Your task to perform on an android device: What's on my calendar today? Image 0: 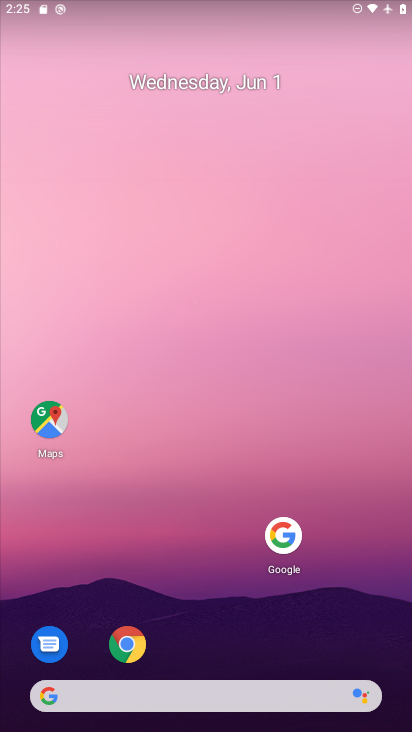
Step 0: drag from (181, 696) to (280, 140)
Your task to perform on an android device: What's on my calendar today? Image 1: 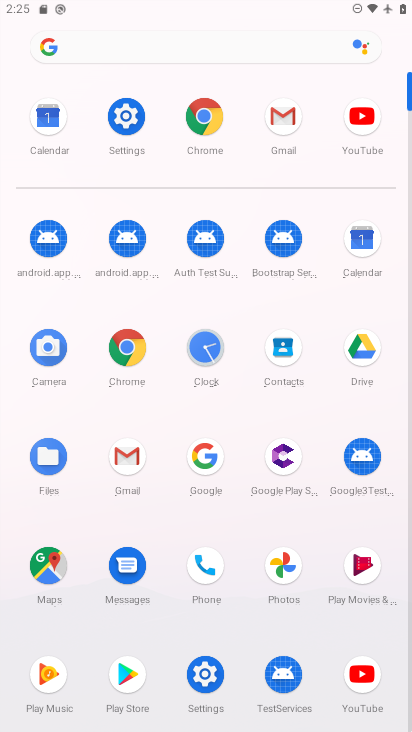
Step 1: click (356, 241)
Your task to perform on an android device: What's on my calendar today? Image 2: 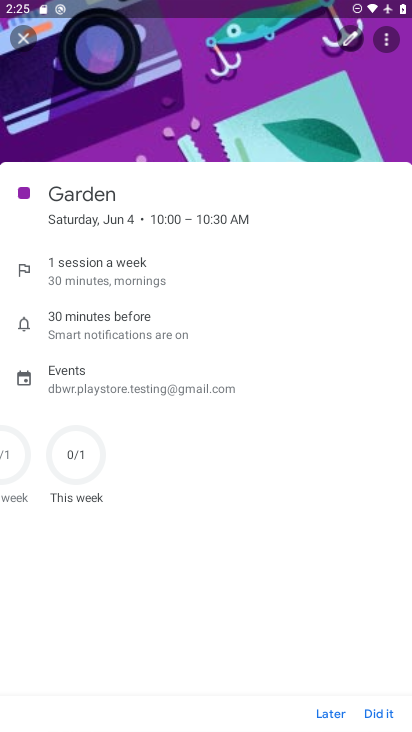
Step 2: click (26, 45)
Your task to perform on an android device: What's on my calendar today? Image 3: 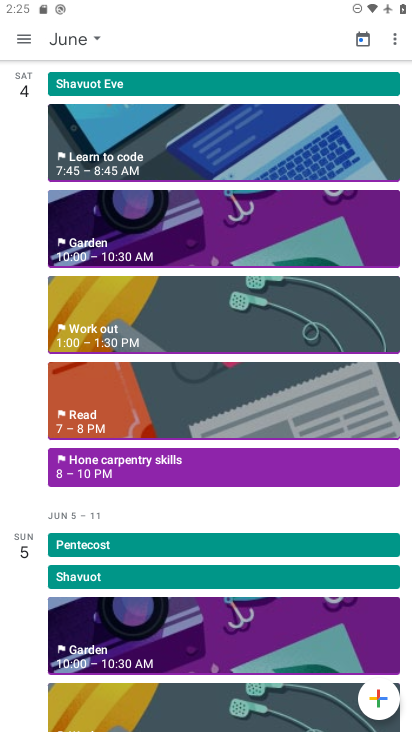
Step 3: click (59, 46)
Your task to perform on an android device: What's on my calendar today? Image 4: 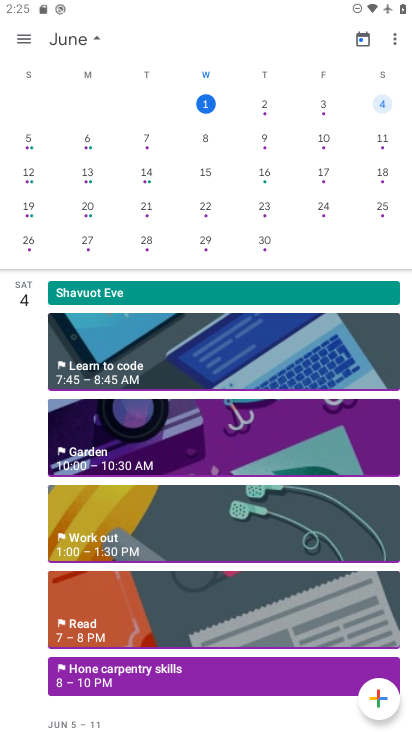
Step 4: click (204, 99)
Your task to perform on an android device: What's on my calendar today? Image 5: 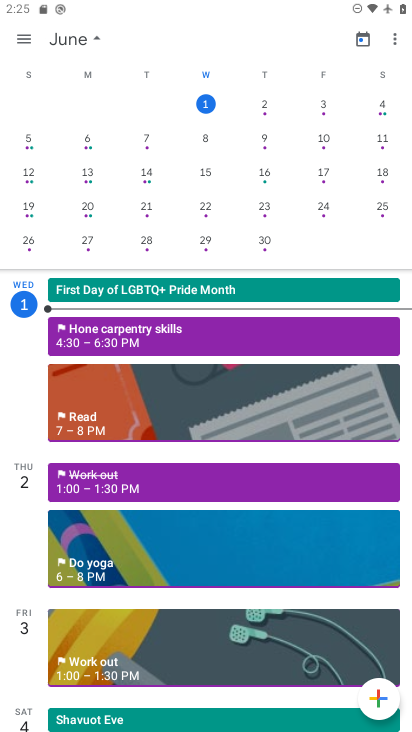
Step 5: click (25, 35)
Your task to perform on an android device: What's on my calendar today? Image 6: 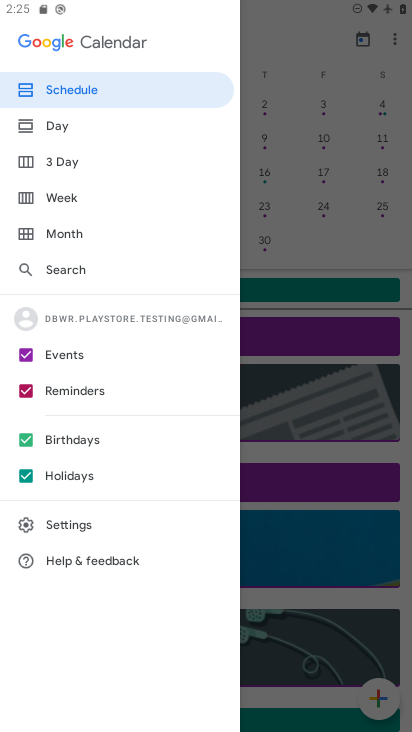
Step 6: click (81, 96)
Your task to perform on an android device: What's on my calendar today? Image 7: 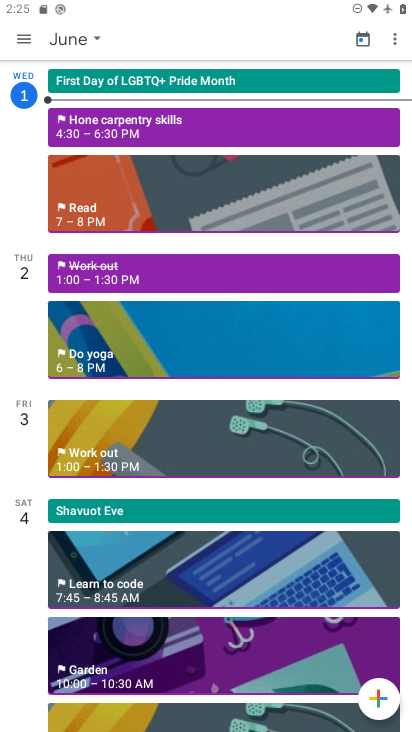
Step 7: click (145, 101)
Your task to perform on an android device: What's on my calendar today? Image 8: 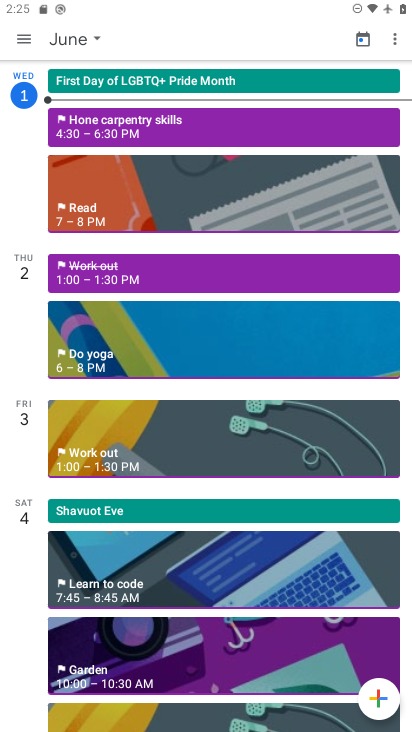
Step 8: click (137, 113)
Your task to perform on an android device: What's on my calendar today? Image 9: 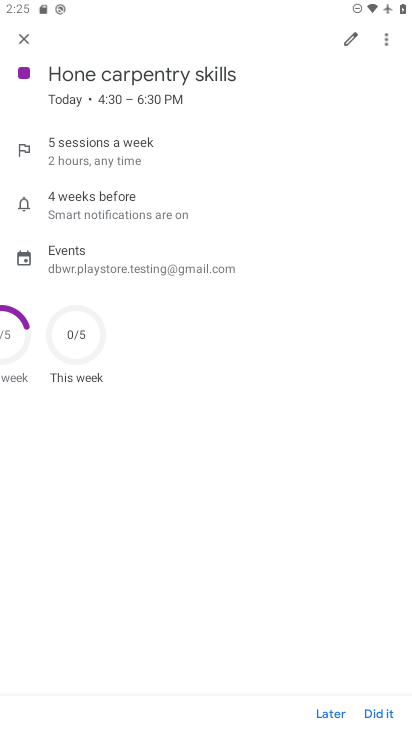
Step 9: task complete